Your task to perform on an android device: toggle notifications settings in the gmail app Image 0: 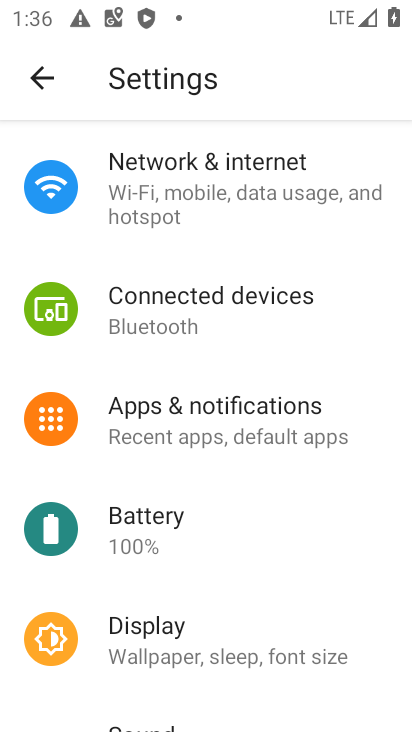
Step 0: press home button
Your task to perform on an android device: toggle notifications settings in the gmail app Image 1: 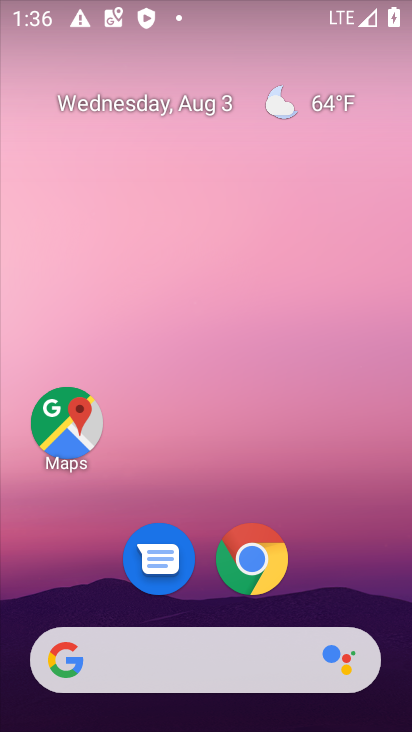
Step 1: drag from (197, 546) to (197, 145)
Your task to perform on an android device: toggle notifications settings in the gmail app Image 2: 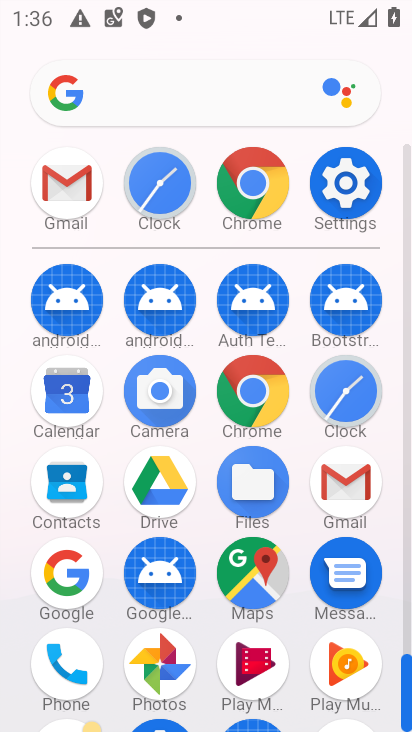
Step 2: click (346, 503)
Your task to perform on an android device: toggle notifications settings in the gmail app Image 3: 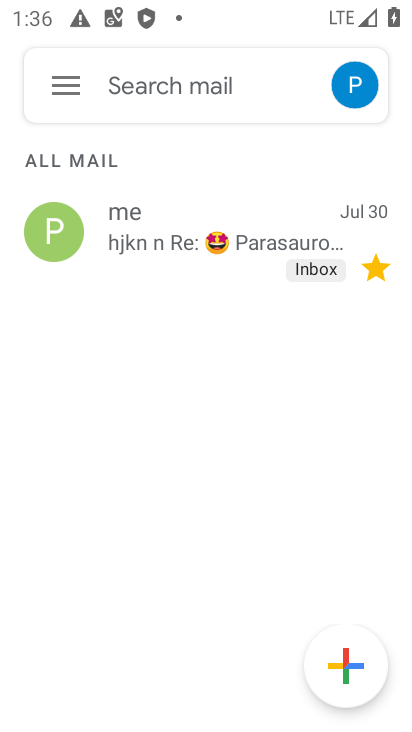
Step 3: click (75, 83)
Your task to perform on an android device: toggle notifications settings in the gmail app Image 4: 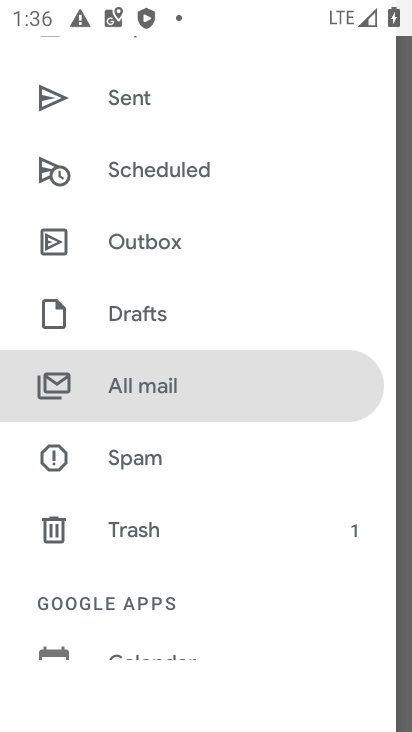
Step 4: drag from (133, 582) to (115, 265)
Your task to perform on an android device: toggle notifications settings in the gmail app Image 5: 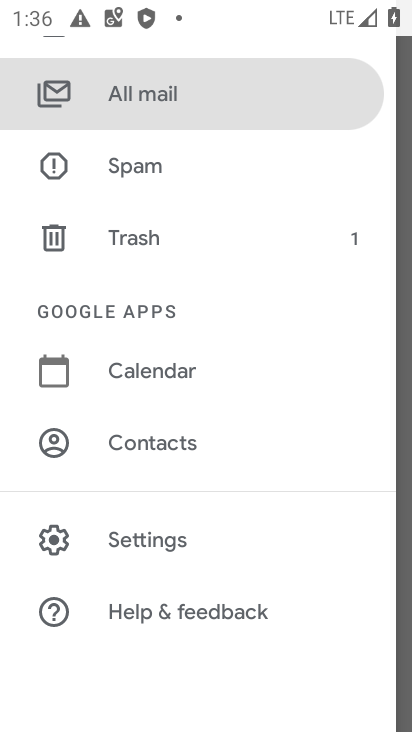
Step 5: click (150, 540)
Your task to perform on an android device: toggle notifications settings in the gmail app Image 6: 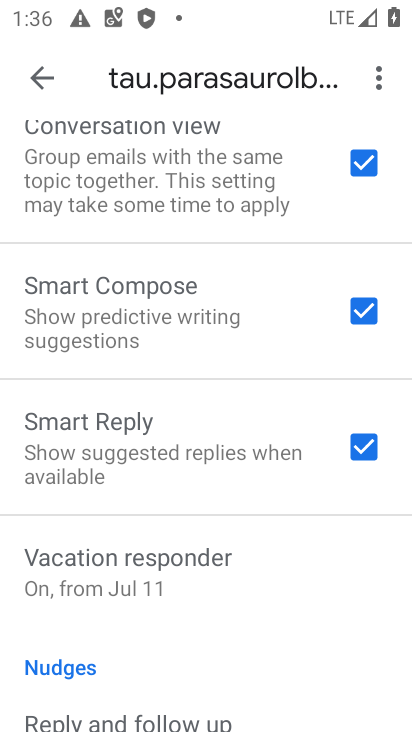
Step 6: drag from (140, 202) to (164, 704)
Your task to perform on an android device: toggle notifications settings in the gmail app Image 7: 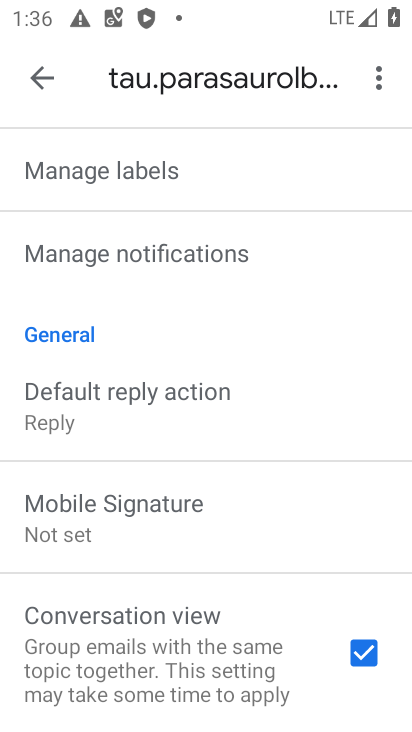
Step 7: drag from (185, 269) to (165, 652)
Your task to perform on an android device: toggle notifications settings in the gmail app Image 8: 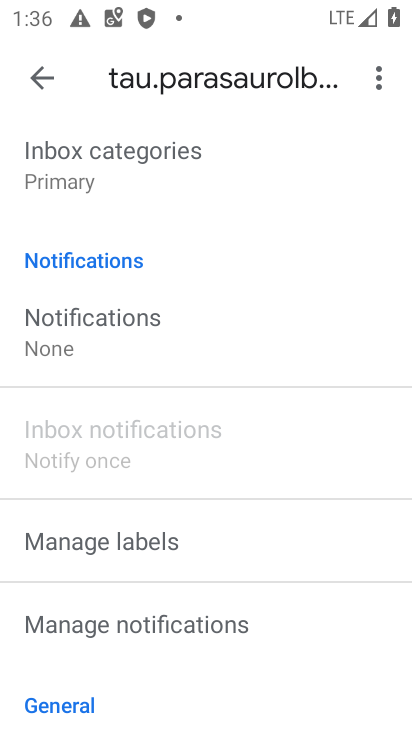
Step 8: drag from (134, 175) to (193, 457)
Your task to perform on an android device: toggle notifications settings in the gmail app Image 9: 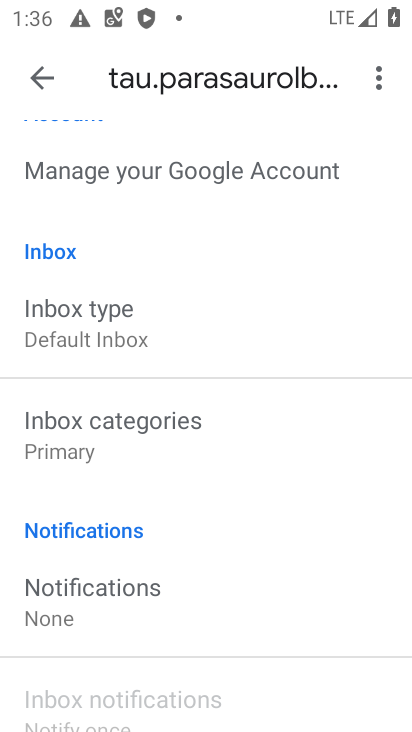
Step 9: click (113, 590)
Your task to perform on an android device: toggle notifications settings in the gmail app Image 10: 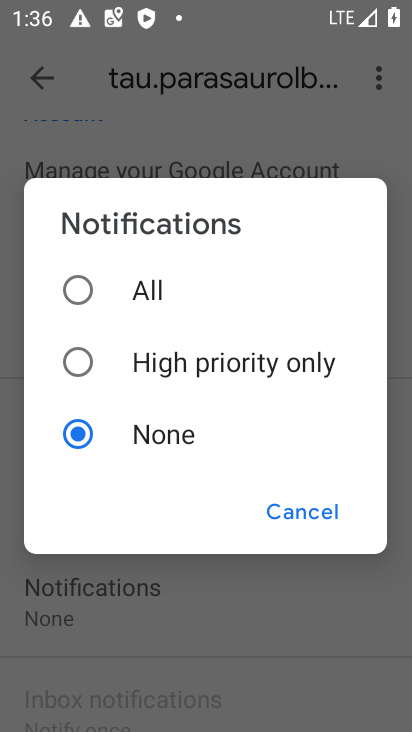
Step 10: click (73, 290)
Your task to perform on an android device: toggle notifications settings in the gmail app Image 11: 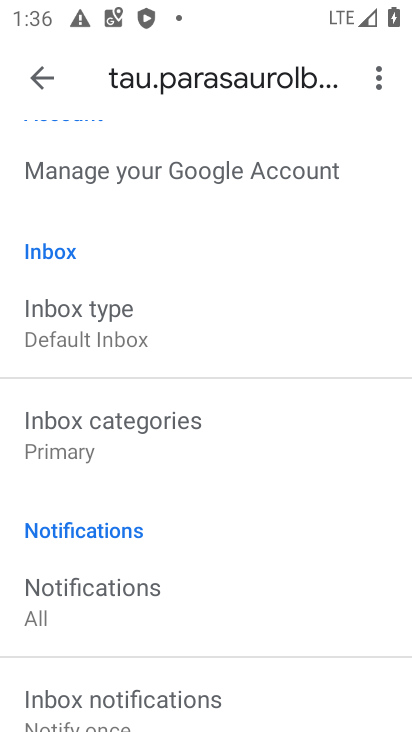
Step 11: task complete